Your task to perform on an android device: open app "Viber Messenger" (install if not already installed) Image 0: 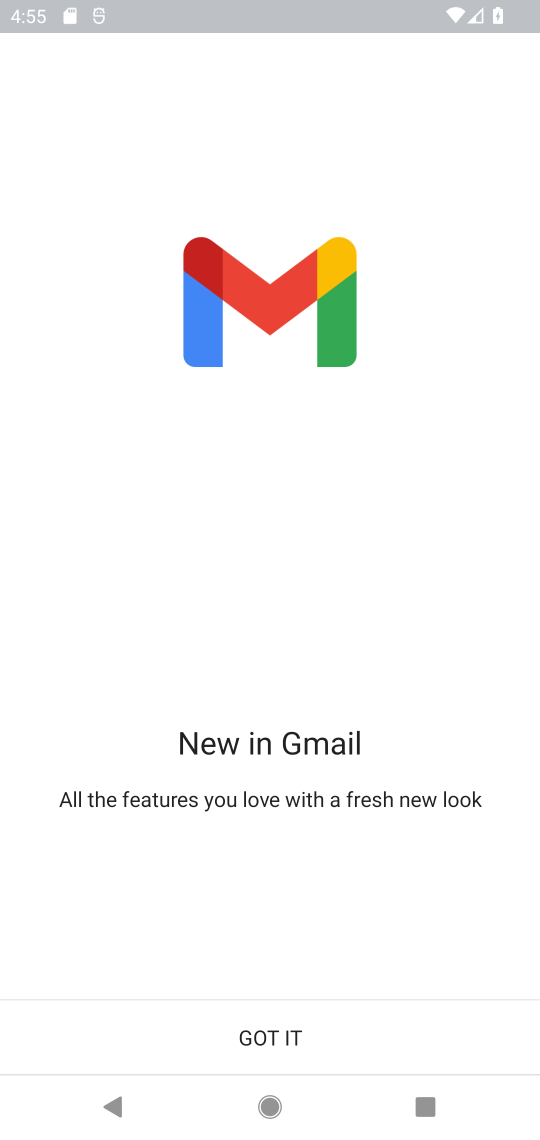
Step 0: press enter
Your task to perform on an android device: open app "Viber Messenger" (install if not already installed) Image 1: 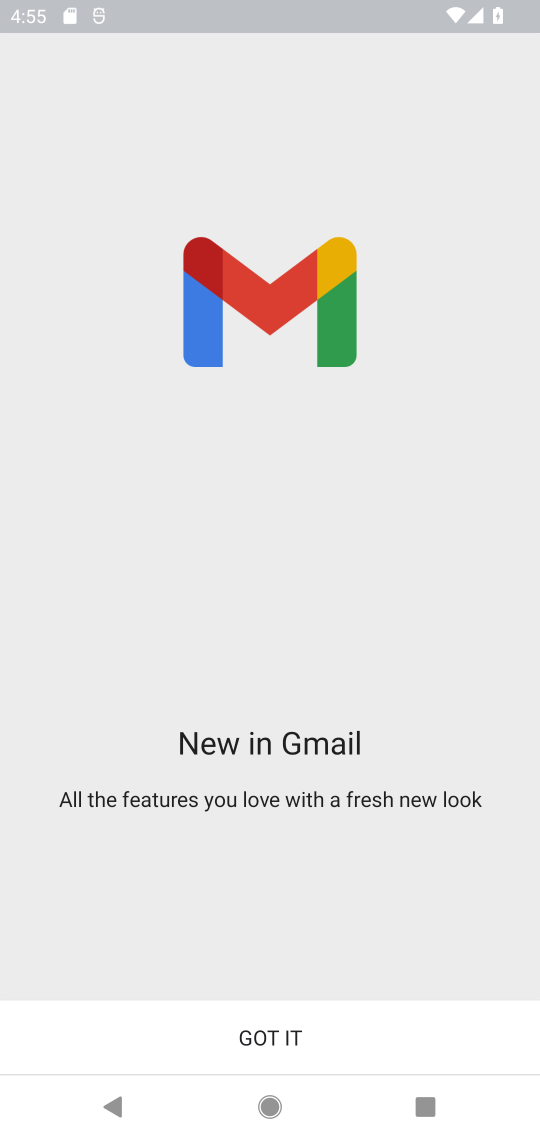
Step 1: press enter
Your task to perform on an android device: open app "Viber Messenger" (install if not already installed) Image 2: 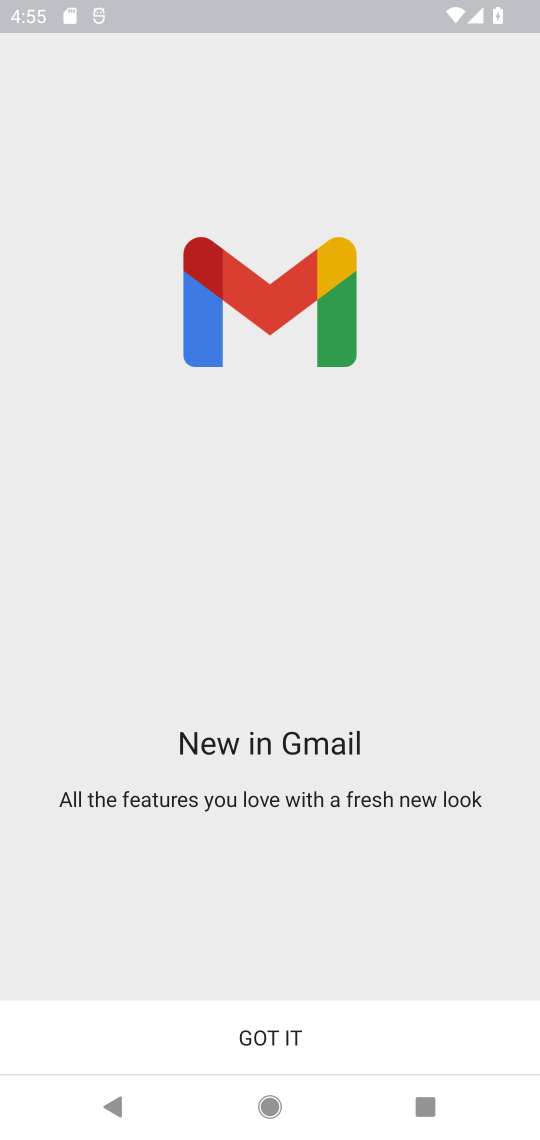
Step 2: press home button
Your task to perform on an android device: open app "Viber Messenger" (install if not already installed) Image 3: 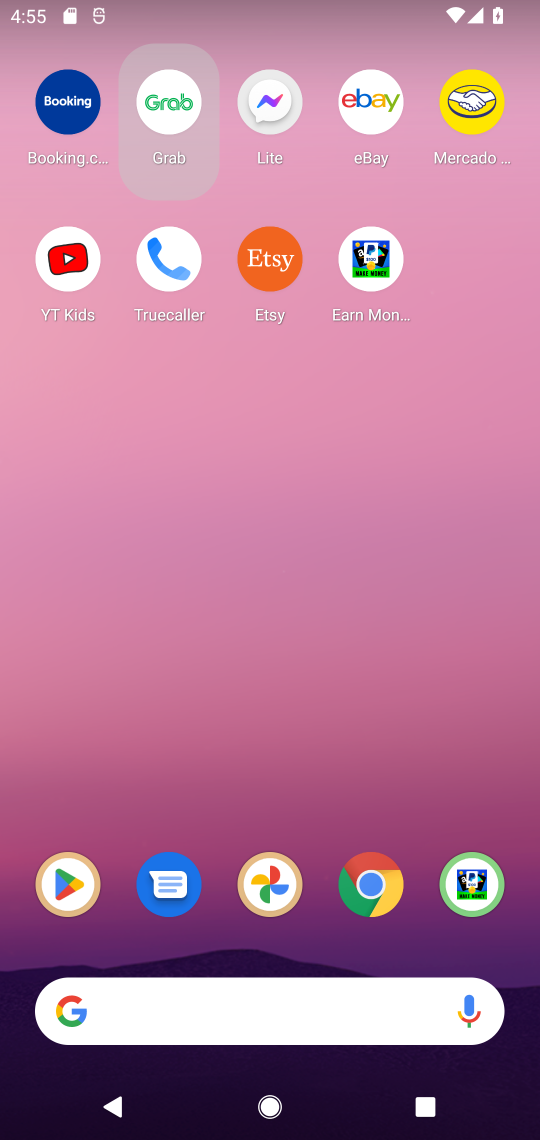
Step 3: drag from (326, 743) to (379, 30)
Your task to perform on an android device: open app "Viber Messenger" (install if not already installed) Image 4: 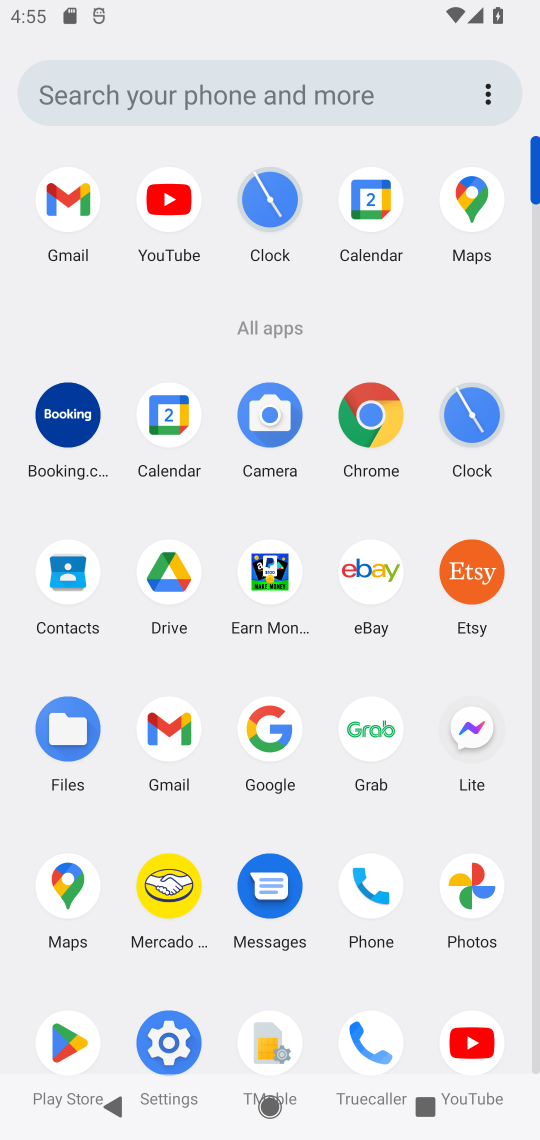
Step 4: click (63, 1032)
Your task to perform on an android device: open app "Viber Messenger" (install if not already installed) Image 5: 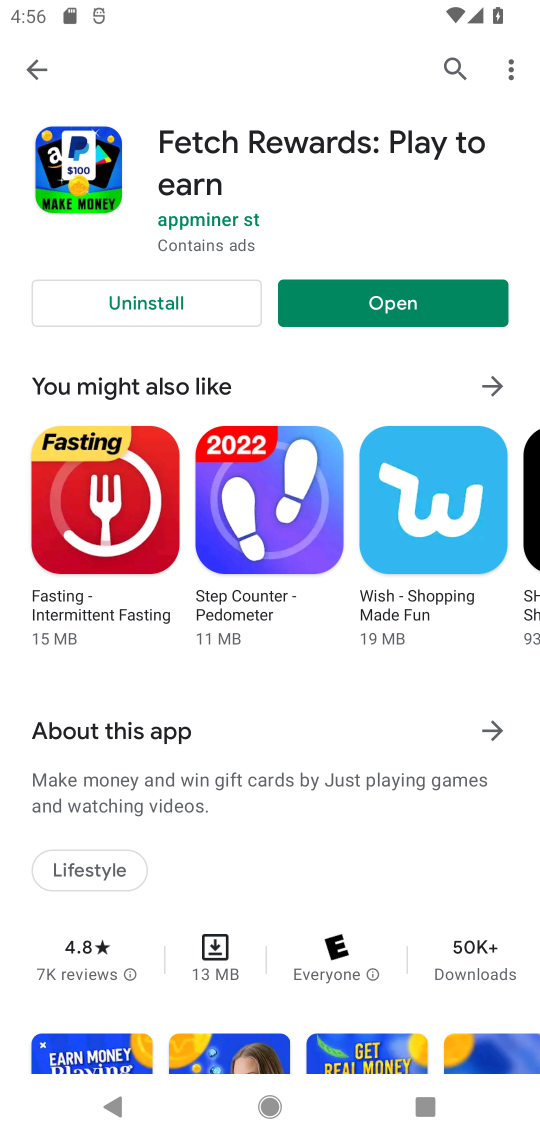
Step 5: click (25, 68)
Your task to perform on an android device: open app "Viber Messenger" (install if not already installed) Image 6: 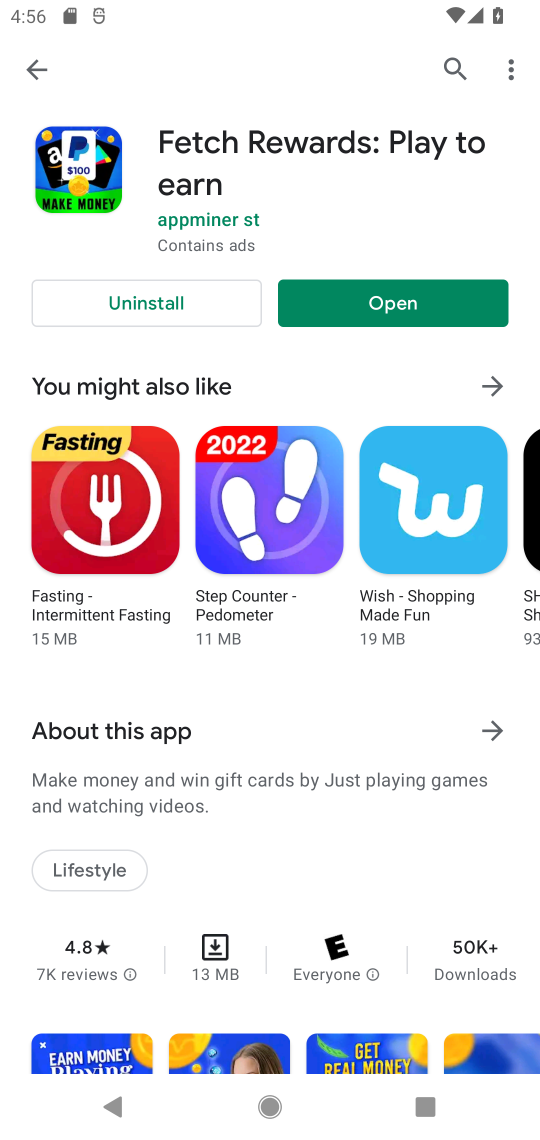
Step 6: click (39, 60)
Your task to perform on an android device: open app "Viber Messenger" (install if not already installed) Image 7: 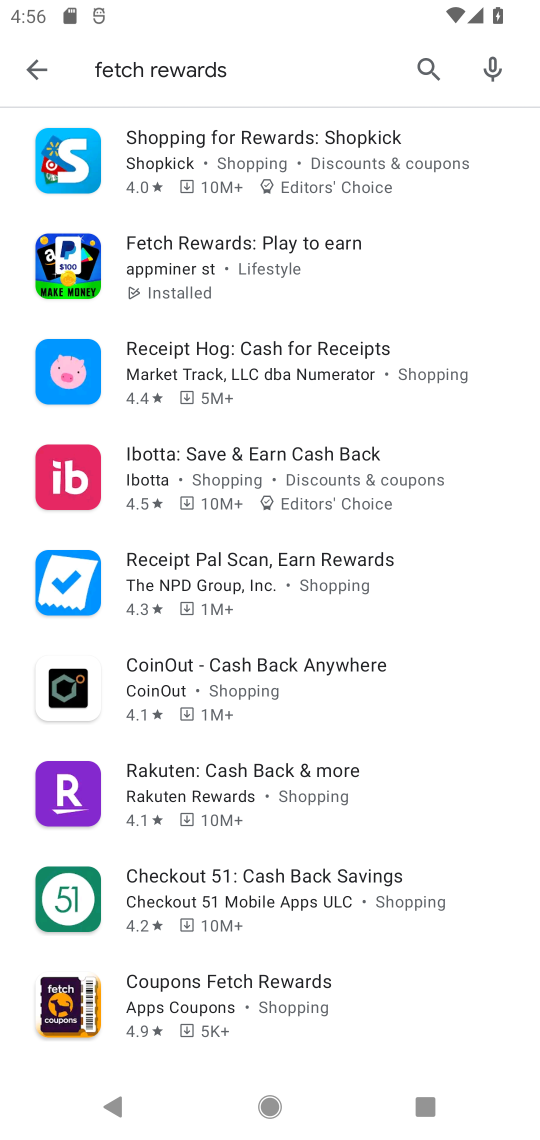
Step 7: click (40, 71)
Your task to perform on an android device: open app "Viber Messenger" (install if not already installed) Image 8: 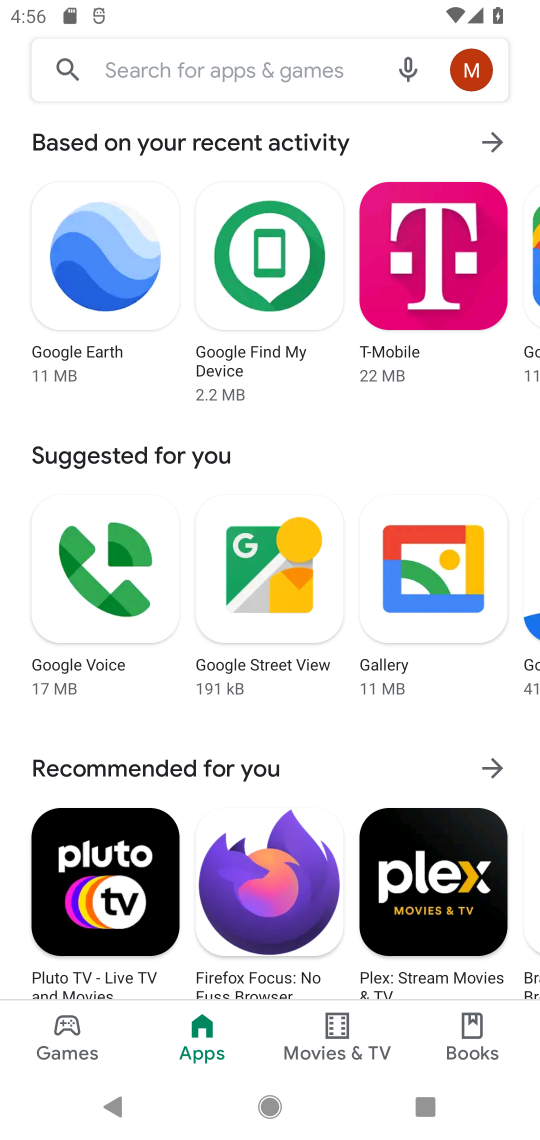
Step 8: click (102, 53)
Your task to perform on an android device: open app "Viber Messenger" (install if not already installed) Image 9: 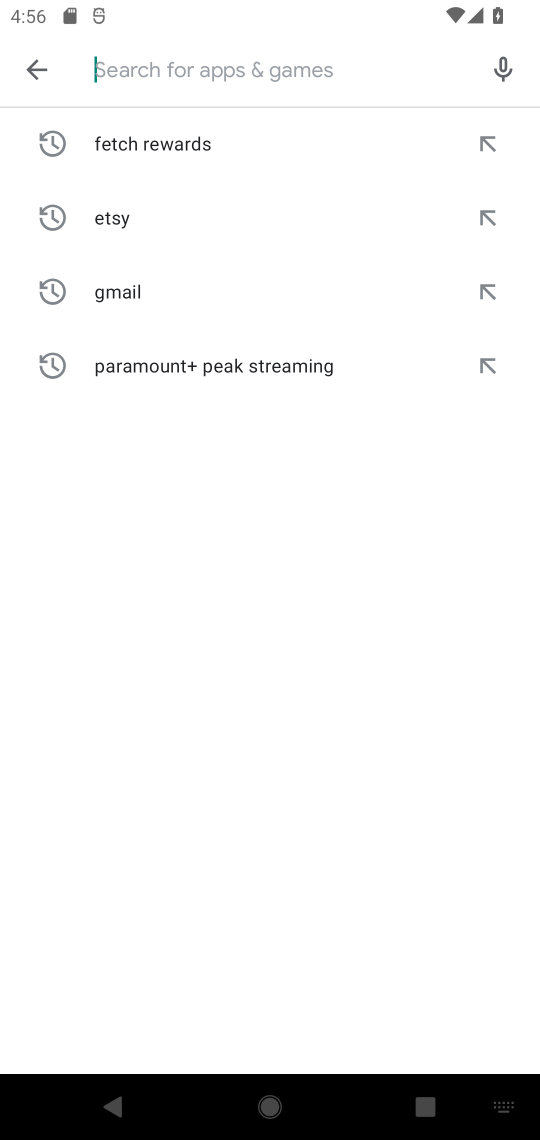
Step 9: type "Viber Messenger"
Your task to perform on an android device: open app "Viber Messenger" (install if not already installed) Image 10: 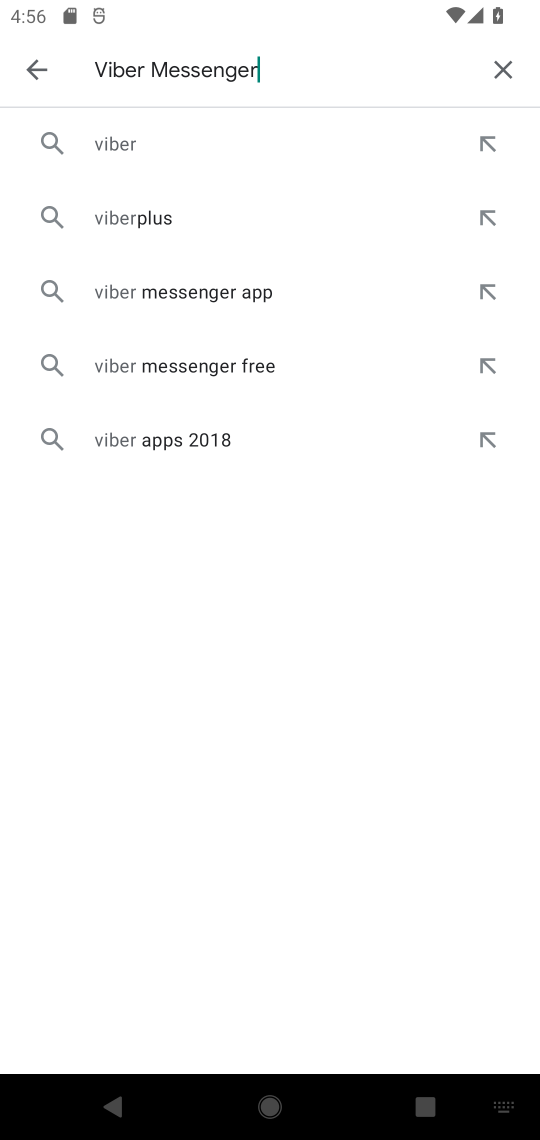
Step 10: type ""
Your task to perform on an android device: open app "Viber Messenger" (install if not already installed) Image 11: 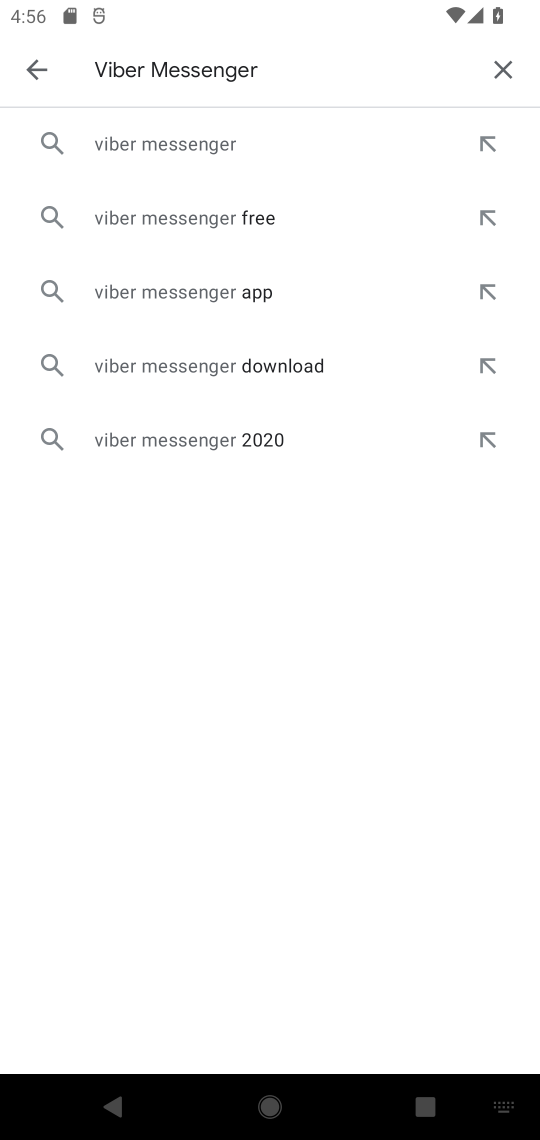
Step 11: click (165, 133)
Your task to perform on an android device: open app "Viber Messenger" (install if not already installed) Image 12: 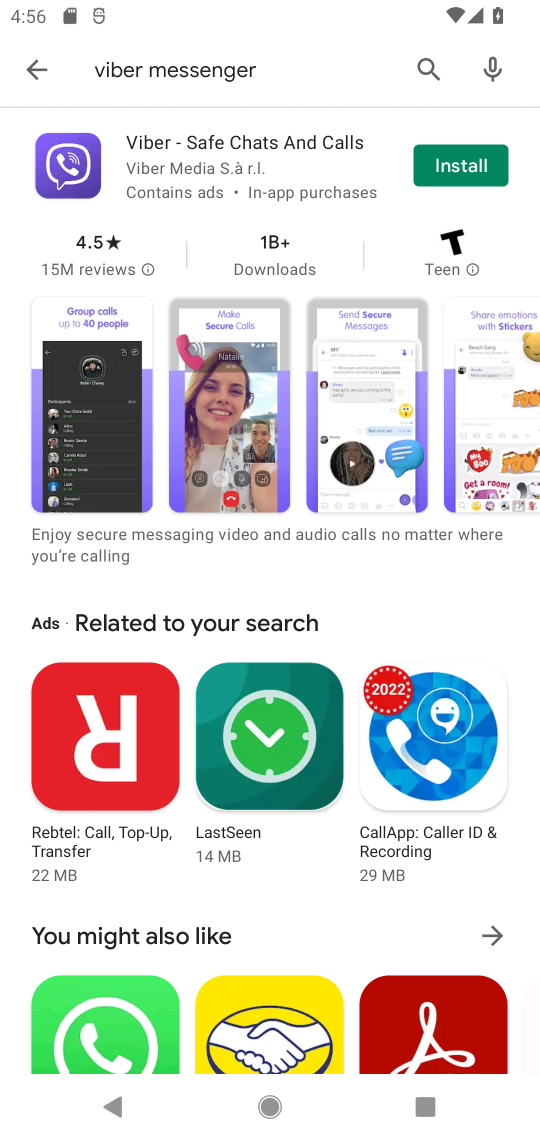
Step 12: click (462, 171)
Your task to perform on an android device: open app "Viber Messenger" (install if not already installed) Image 13: 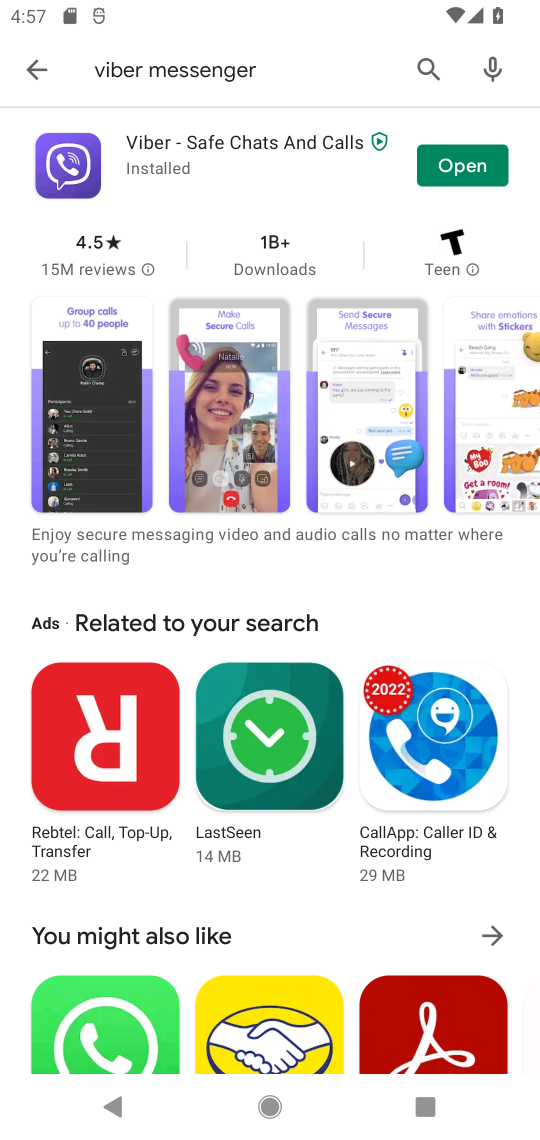
Step 13: click (464, 167)
Your task to perform on an android device: open app "Viber Messenger" (install if not already installed) Image 14: 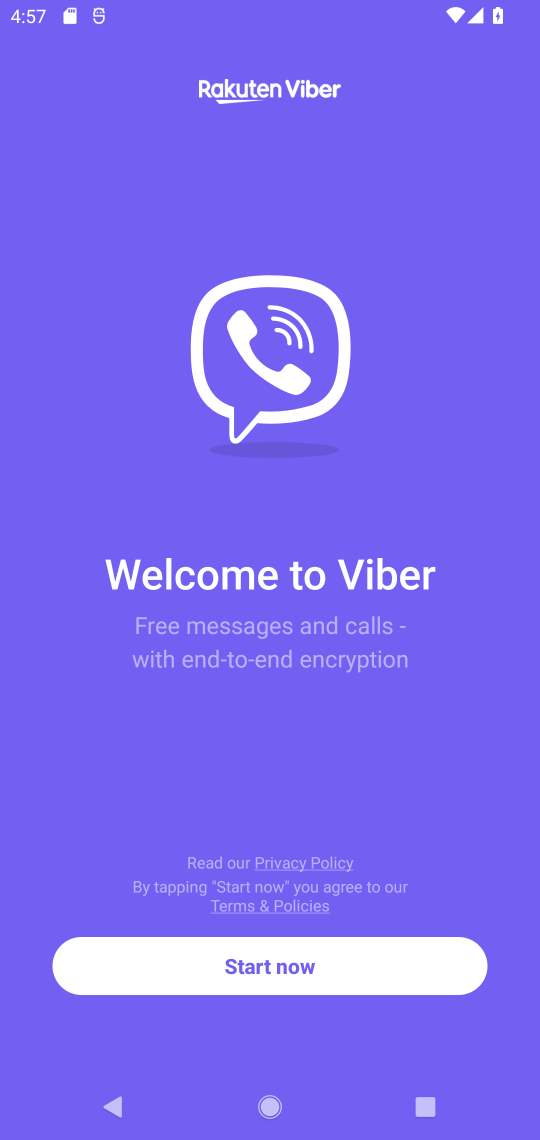
Step 14: click (406, 966)
Your task to perform on an android device: open app "Viber Messenger" (install if not already installed) Image 15: 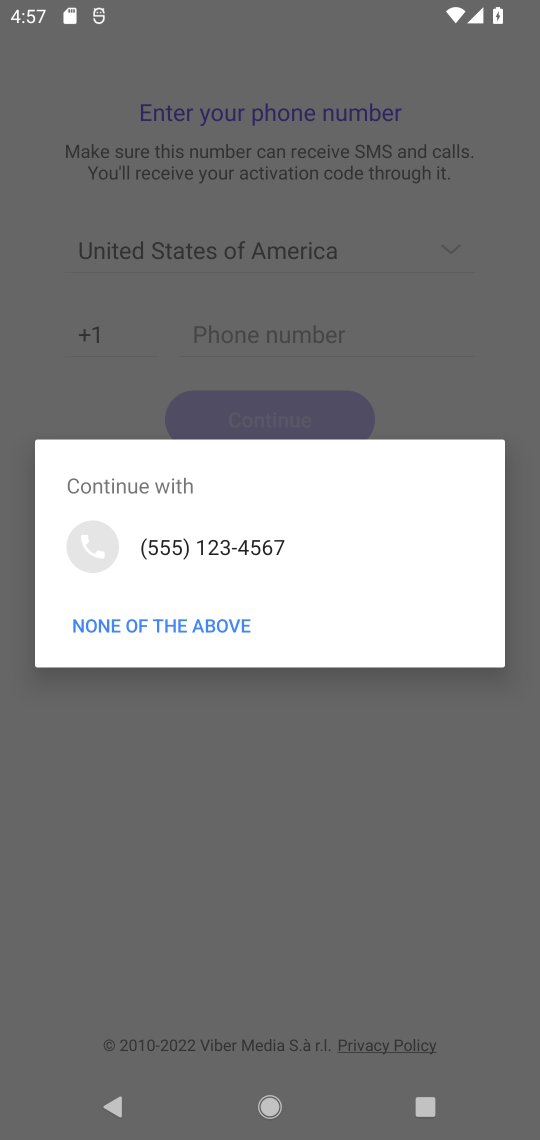
Step 15: task complete